Your task to perform on an android device: What is the capital of Japan? Image 0: 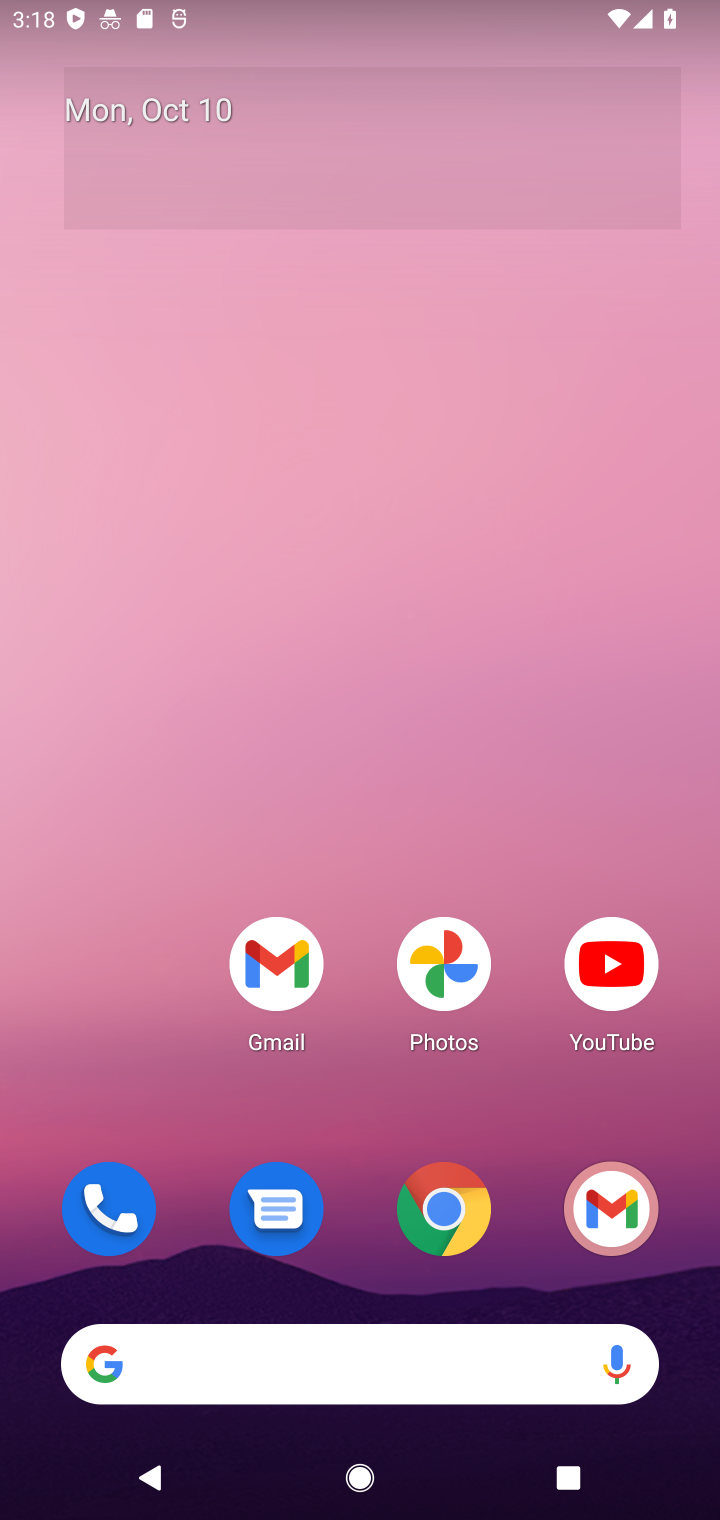
Step 0: click (479, 1202)
Your task to perform on an android device: What is the capital of Japan? Image 1: 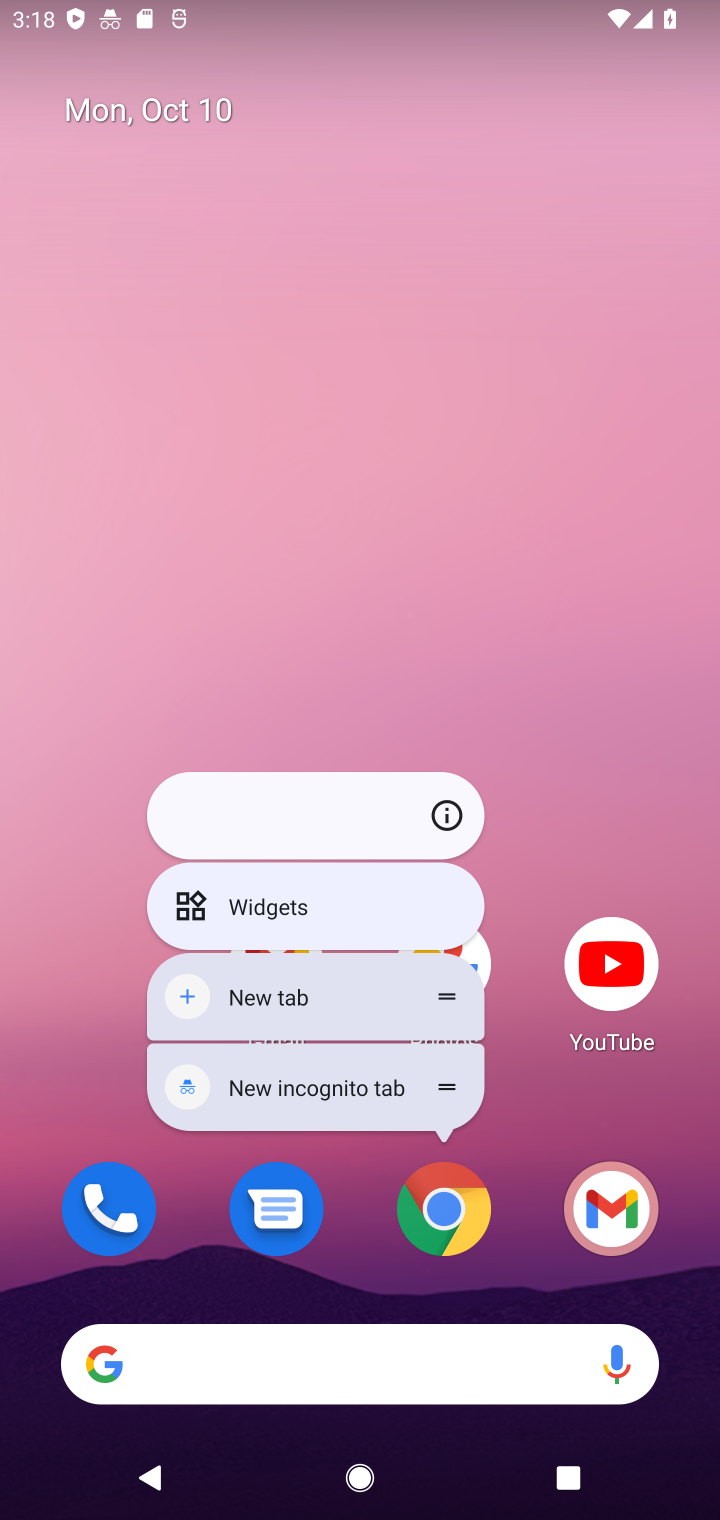
Step 1: click (479, 1202)
Your task to perform on an android device: What is the capital of Japan? Image 2: 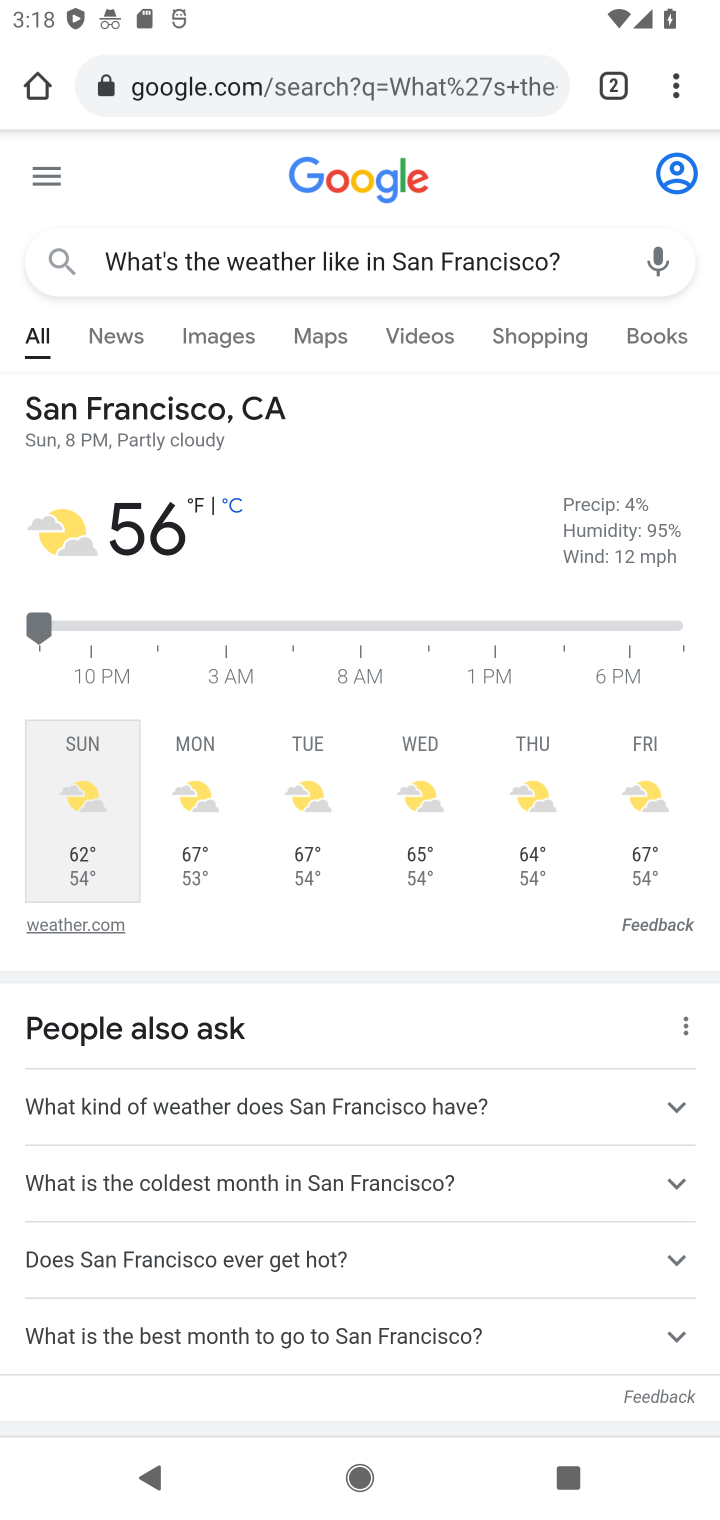
Step 2: click (574, 269)
Your task to perform on an android device: What is the capital of Japan? Image 3: 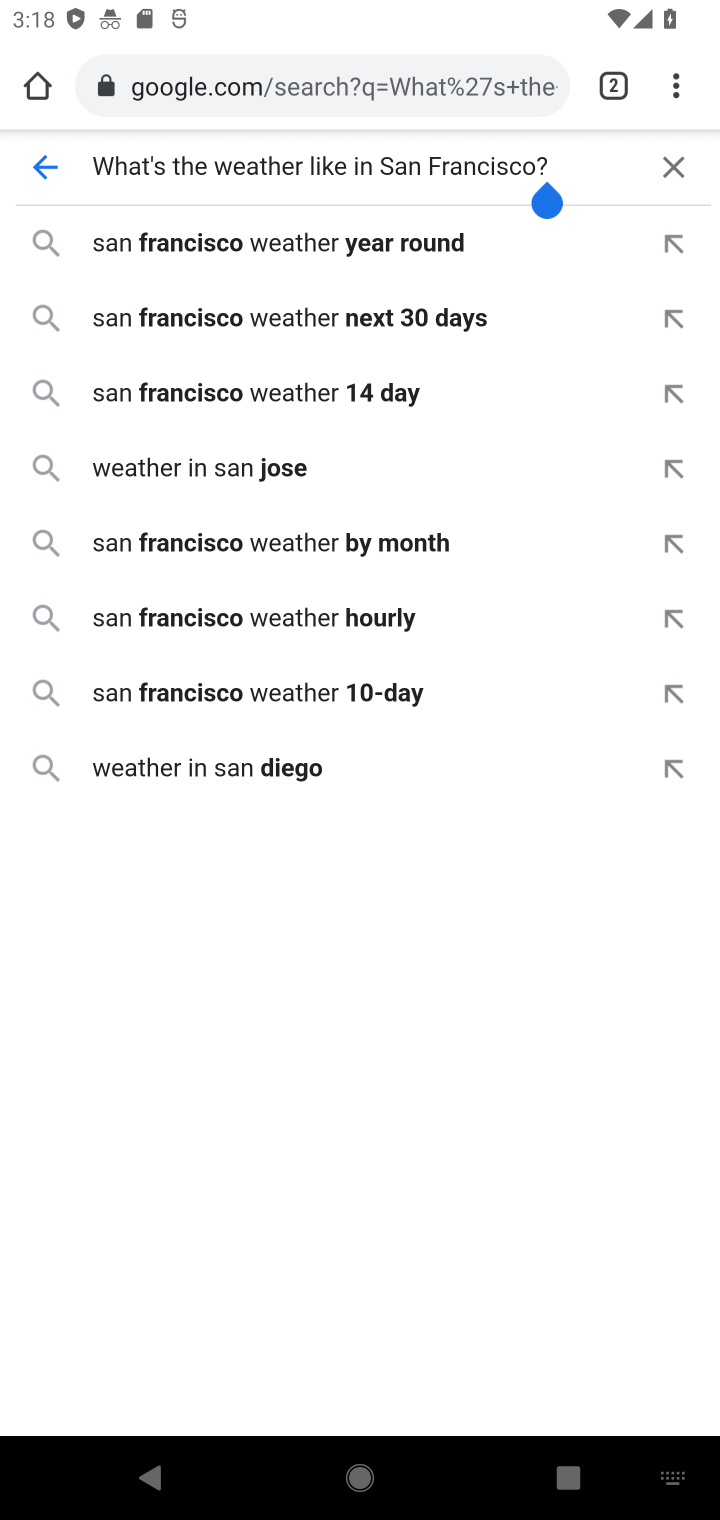
Step 3: click (668, 170)
Your task to perform on an android device: What is the capital of Japan? Image 4: 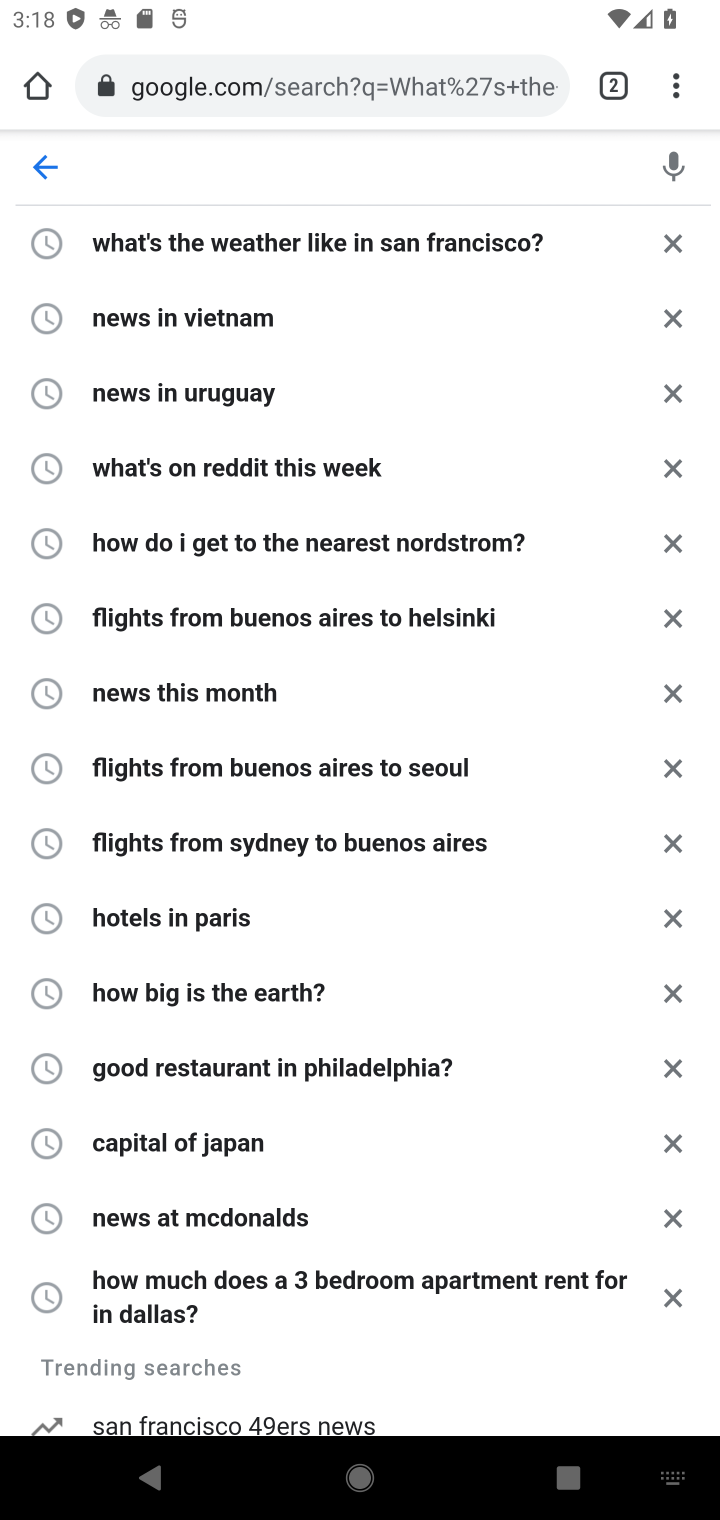
Step 4: type "capital of japan?"
Your task to perform on an android device: What is the capital of Japan? Image 5: 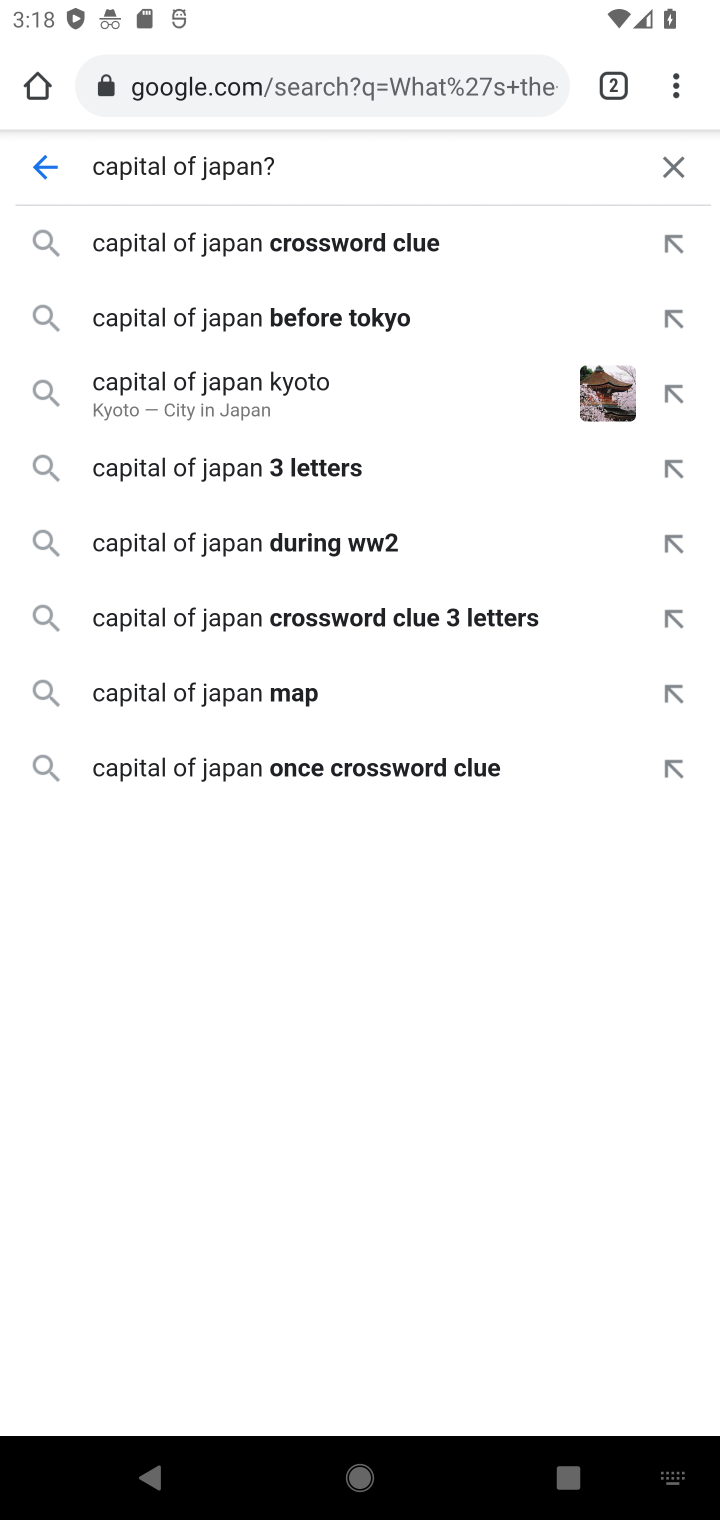
Step 5: press enter
Your task to perform on an android device: What is the capital of Japan? Image 6: 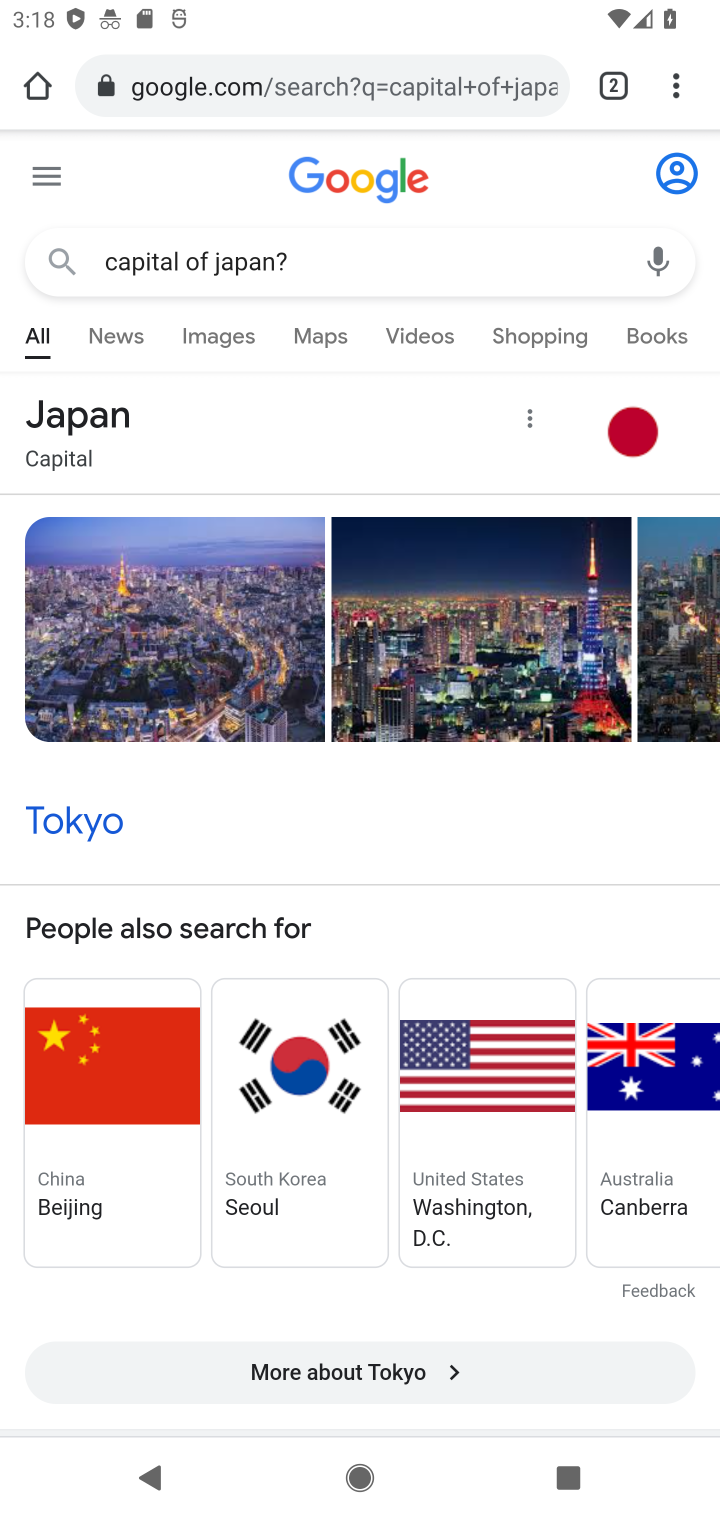
Step 6: task complete